Your task to perform on an android device: Add razer deathadder to the cart on ebay Image 0: 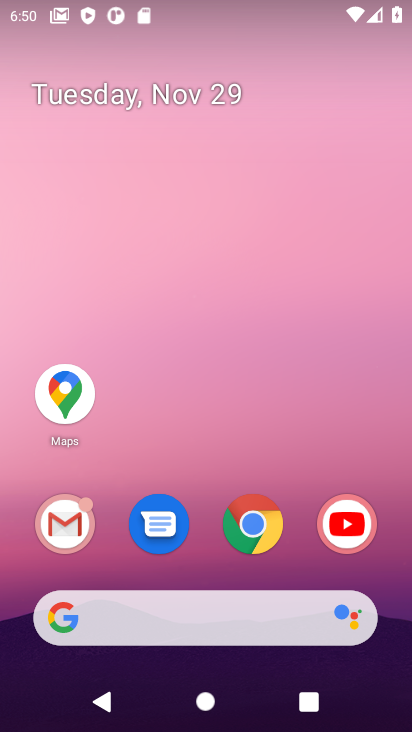
Step 0: click (254, 530)
Your task to perform on an android device: Add razer deathadder to the cart on ebay Image 1: 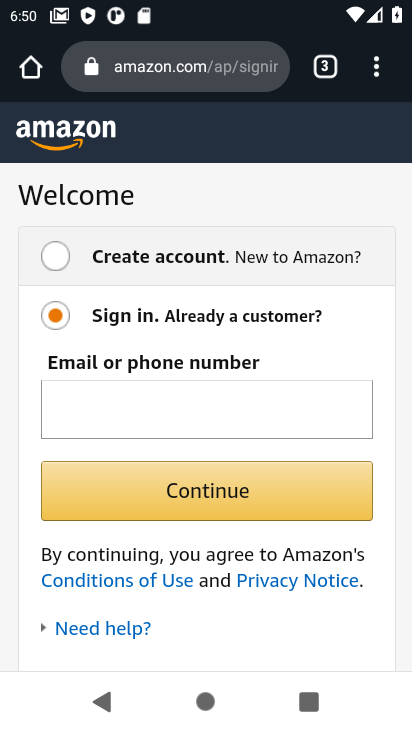
Step 1: click (156, 66)
Your task to perform on an android device: Add razer deathadder to the cart on ebay Image 2: 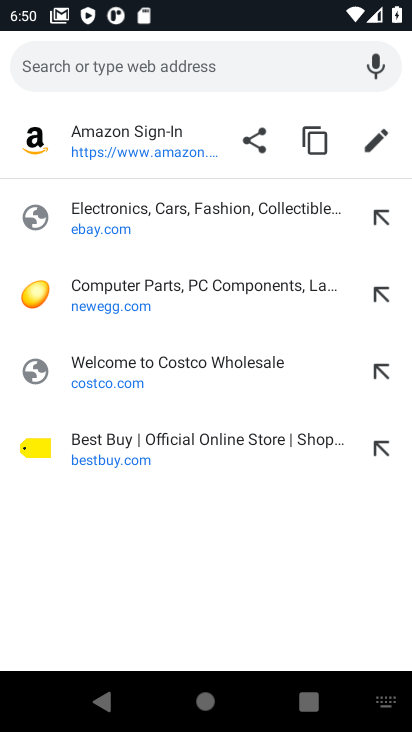
Step 2: click (103, 234)
Your task to perform on an android device: Add razer deathadder to the cart on ebay Image 3: 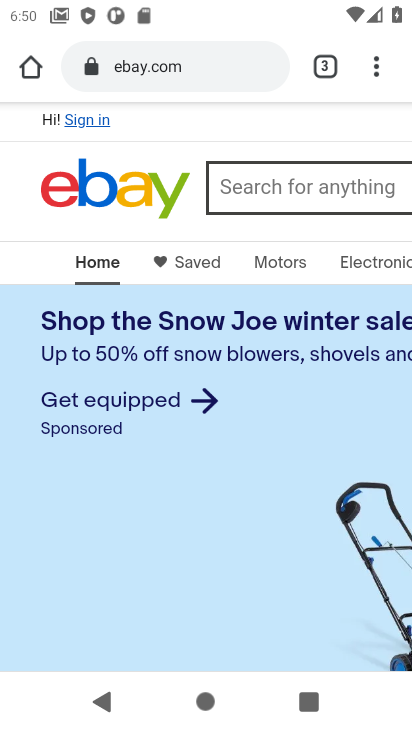
Step 3: click (270, 200)
Your task to perform on an android device: Add razer deathadder to the cart on ebay Image 4: 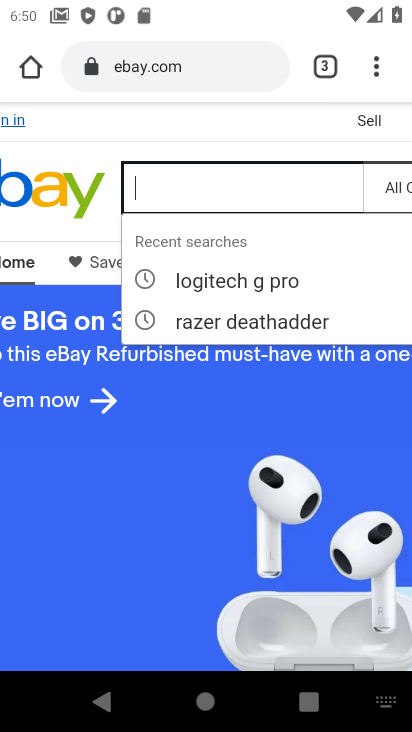
Step 4: click (285, 326)
Your task to perform on an android device: Add razer deathadder to the cart on ebay Image 5: 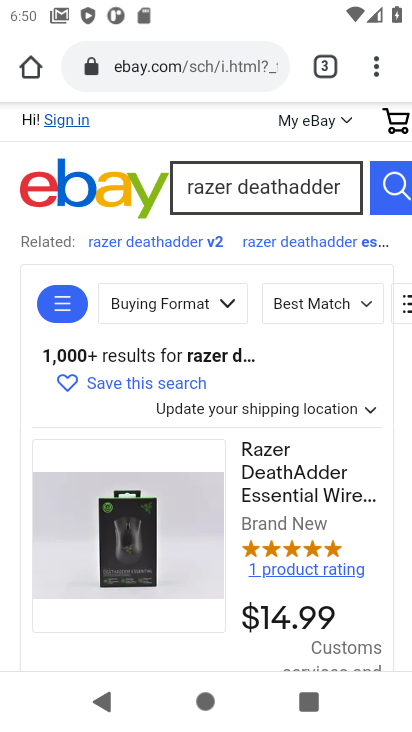
Step 5: click (194, 541)
Your task to perform on an android device: Add razer deathadder to the cart on ebay Image 6: 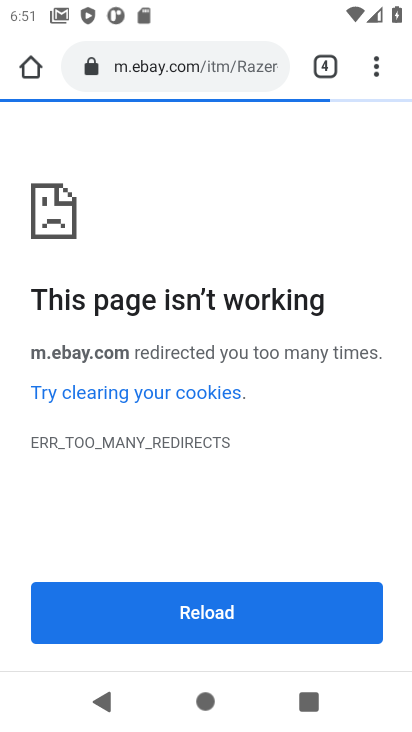
Step 6: task complete